Your task to perform on an android device: open app "LinkedIn" (install if not already installed) Image 0: 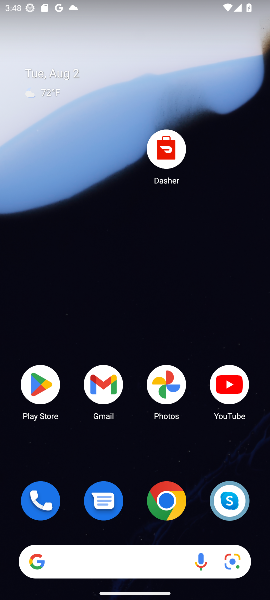
Step 0: click (42, 398)
Your task to perform on an android device: open app "LinkedIn" (install if not already installed) Image 1: 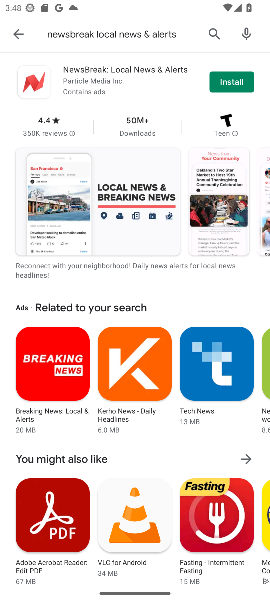
Step 1: click (209, 29)
Your task to perform on an android device: open app "LinkedIn" (install if not already installed) Image 2: 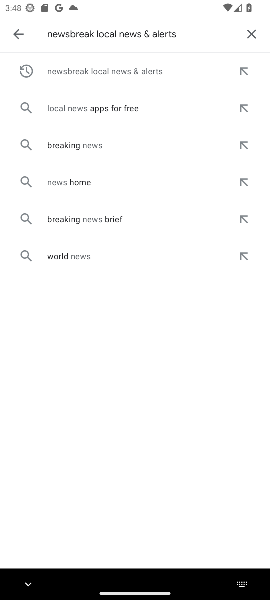
Step 2: click (258, 32)
Your task to perform on an android device: open app "LinkedIn" (install if not already installed) Image 3: 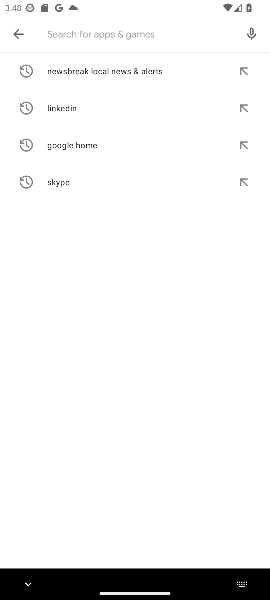
Step 3: type "LinkedIn"
Your task to perform on an android device: open app "LinkedIn" (install if not already installed) Image 4: 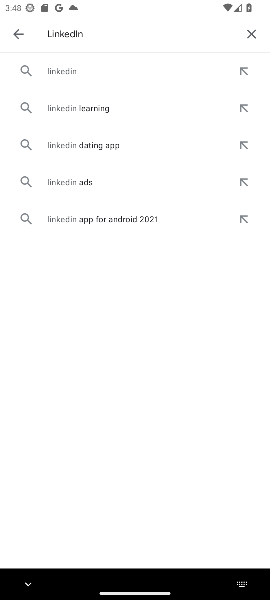
Step 4: click (67, 72)
Your task to perform on an android device: open app "LinkedIn" (install if not already installed) Image 5: 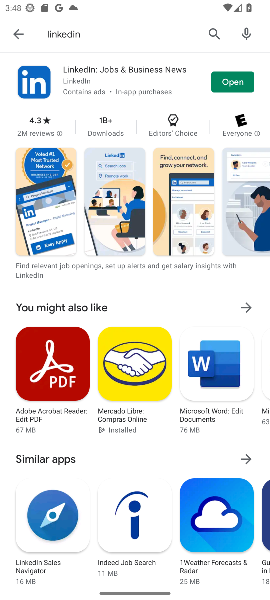
Step 5: click (247, 79)
Your task to perform on an android device: open app "LinkedIn" (install if not already installed) Image 6: 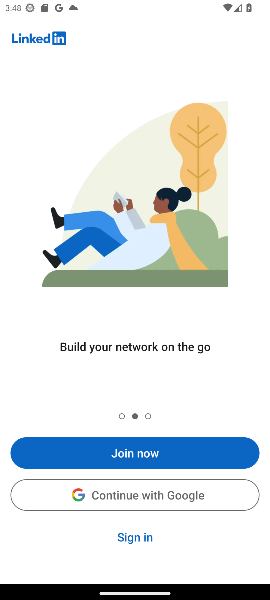
Step 6: task complete